Your task to perform on an android device: Turn off the flashlight Image 0: 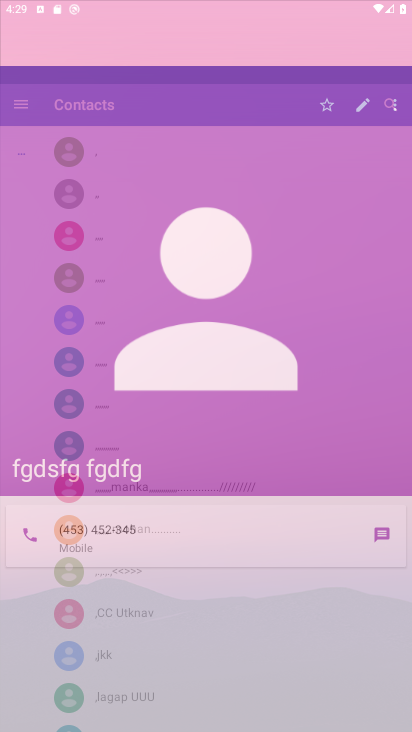
Step 0: drag from (283, 491) to (224, 98)
Your task to perform on an android device: Turn off the flashlight Image 1: 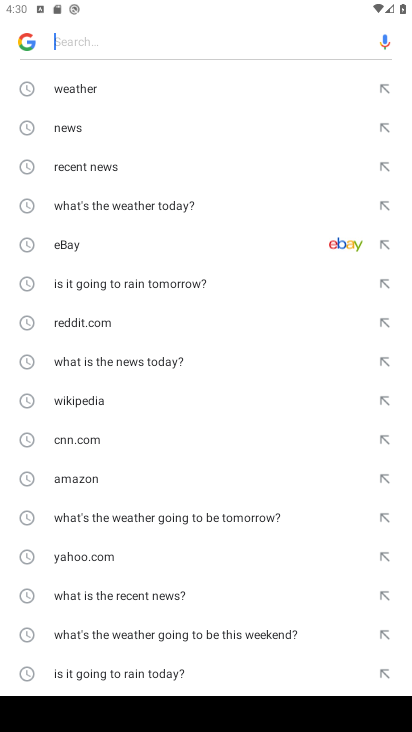
Step 1: press home button
Your task to perform on an android device: Turn off the flashlight Image 2: 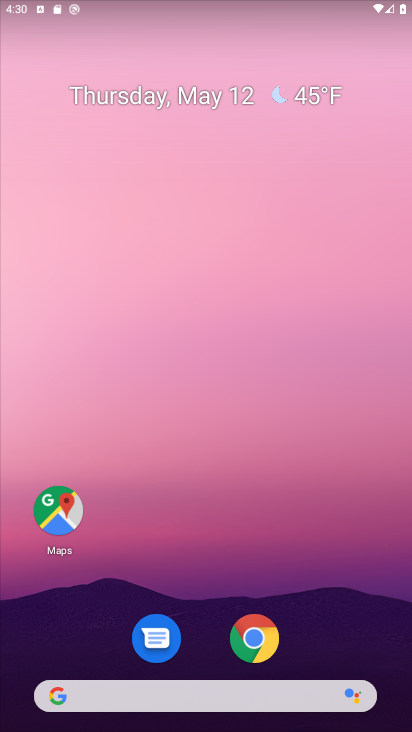
Step 2: drag from (301, 526) to (217, 97)
Your task to perform on an android device: Turn off the flashlight Image 3: 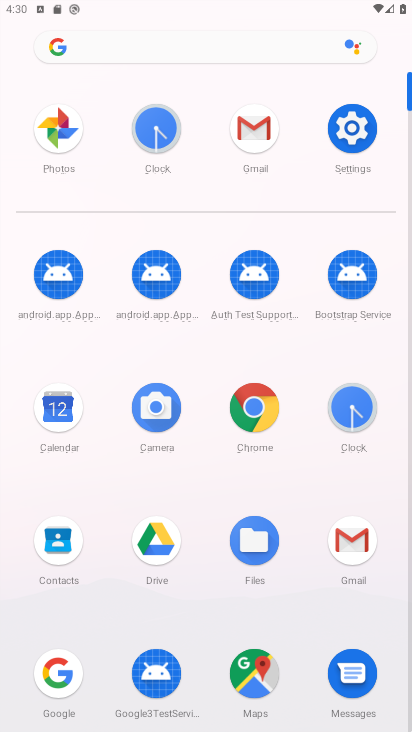
Step 3: click (61, 668)
Your task to perform on an android device: Turn off the flashlight Image 4: 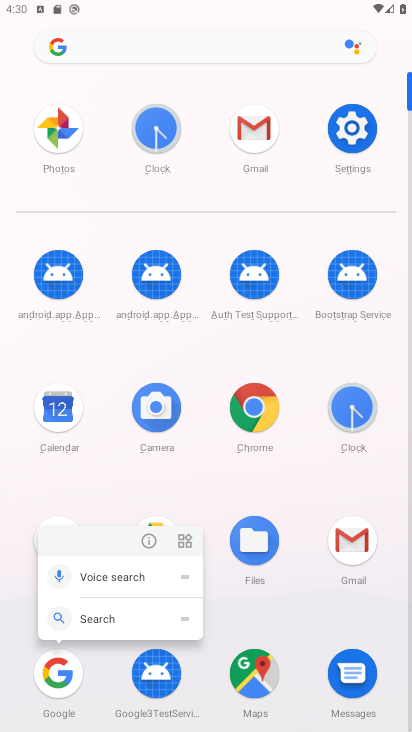
Step 4: click (56, 657)
Your task to perform on an android device: Turn off the flashlight Image 5: 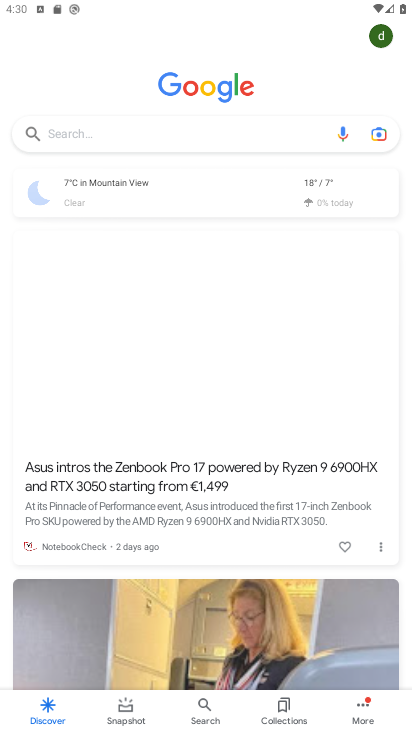
Step 5: click (367, 705)
Your task to perform on an android device: Turn off the flashlight Image 6: 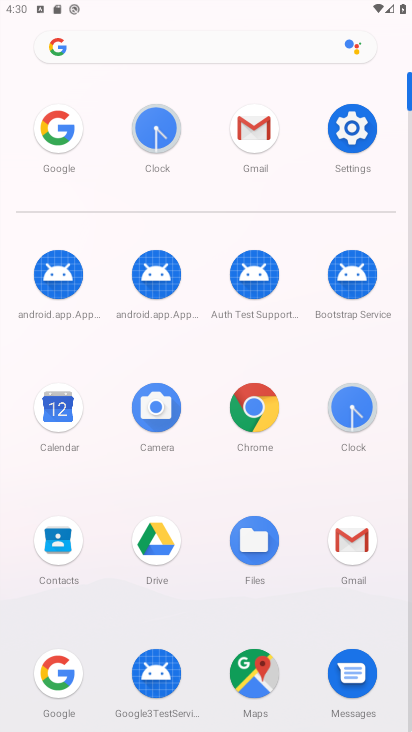
Step 6: click (338, 136)
Your task to perform on an android device: Turn off the flashlight Image 7: 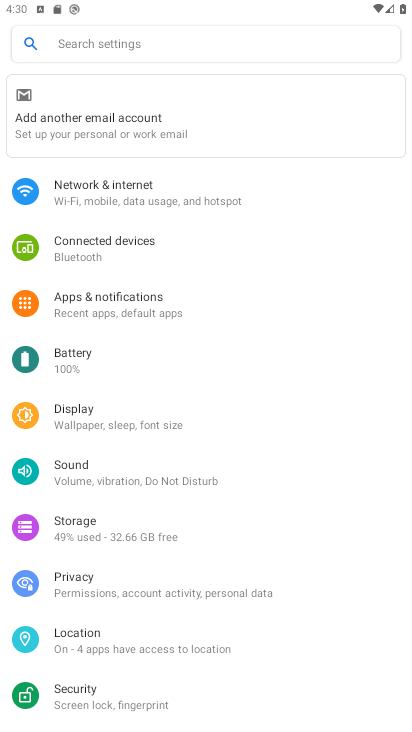
Step 7: task complete